Your task to perform on an android device: open sync settings in chrome Image 0: 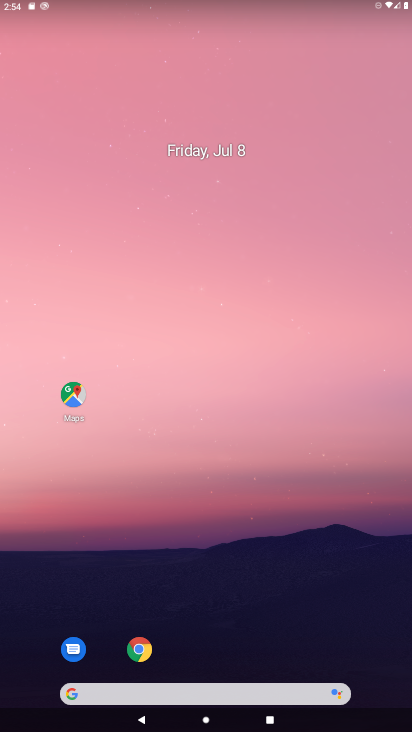
Step 0: click (141, 650)
Your task to perform on an android device: open sync settings in chrome Image 1: 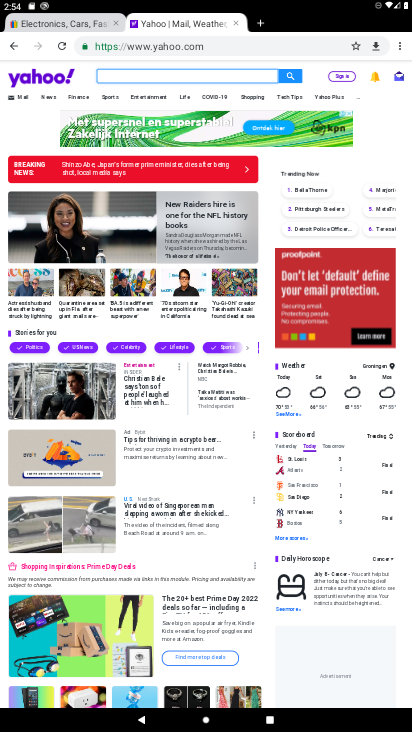
Step 1: click (398, 48)
Your task to perform on an android device: open sync settings in chrome Image 2: 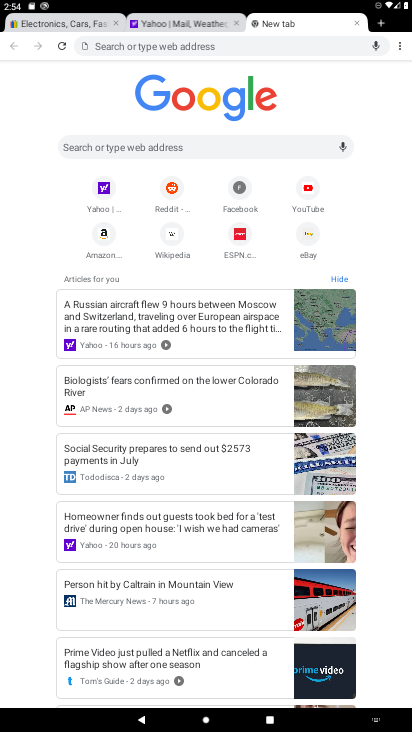
Step 2: click (398, 50)
Your task to perform on an android device: open sync settings in chrome Image 3: 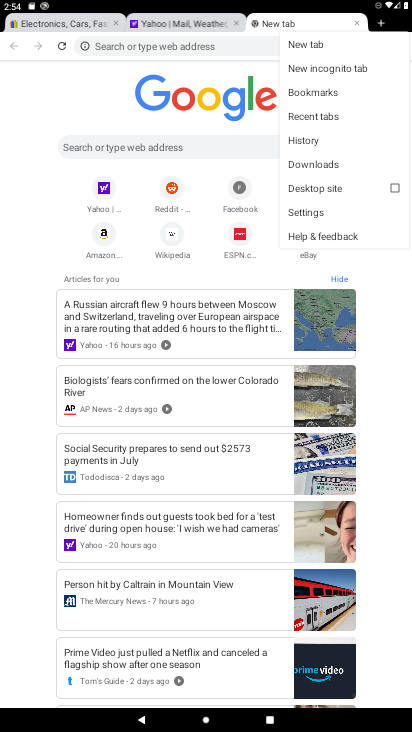
Step 3: click (313, 210)
Your task to perform on an android device: open sync settings in chrome Image 4: 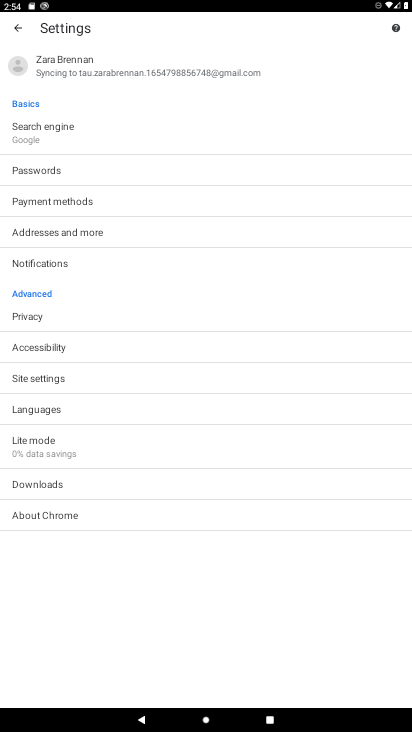
Step 4: click (75, 66)
Your task to perform on an android device: open sync settings in chrome Image 5: 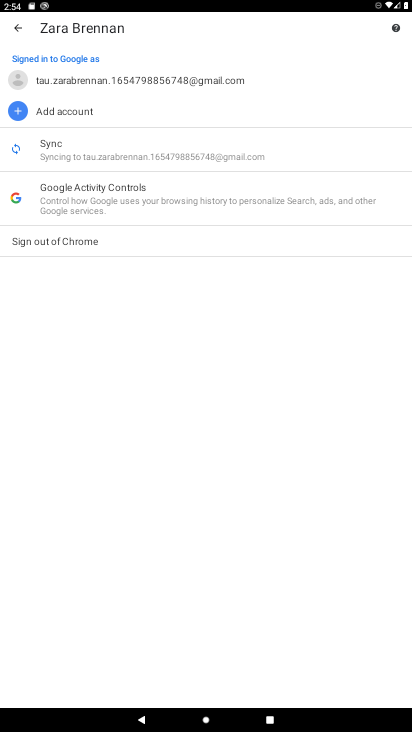
Step 5: click (51, 153)
Your task to perform on an android device: open sync settings in chrome Image 6: 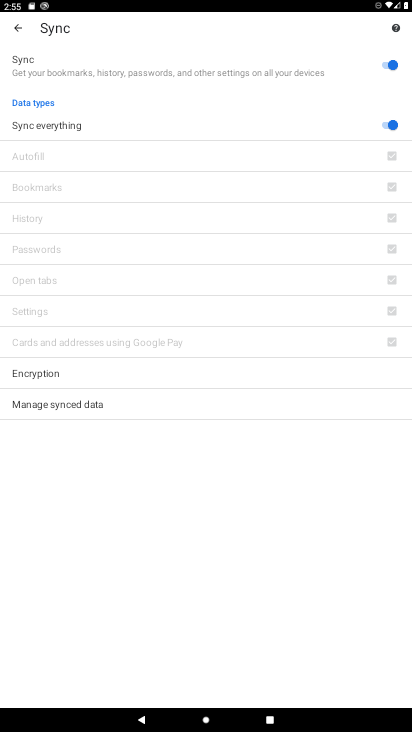
Step 6: task complete